Your task to perform on an android device: remove spam from my inbox in the gmail app Image 0: 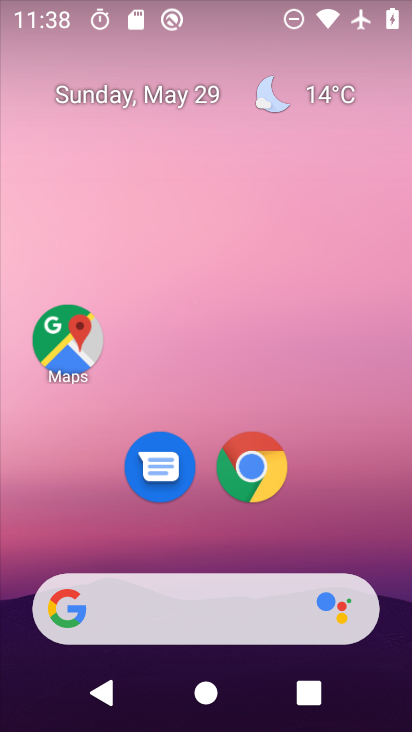
Step 0: drag from (191, 477) to (182, 202)
Your task to perform on an android device: remove spam from my inbox in the gmail app Image 1: 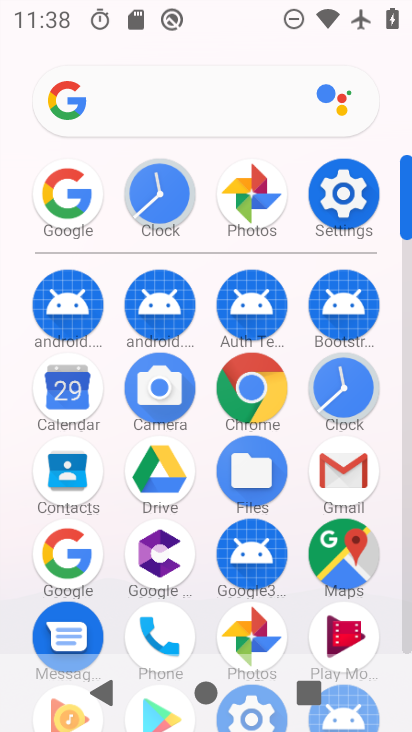
Step 1: click (337, 480)
Your task to perform on an android device: remove spam from my inbox in the gmail app Image 2: 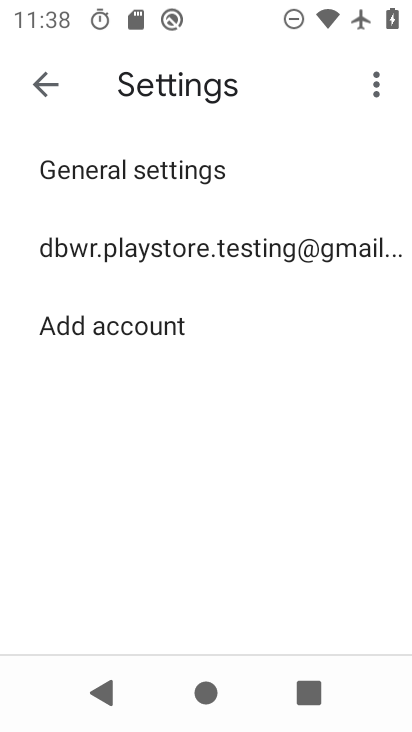
Step 2: click (41, 90)
Your task to perform on an android device: remove spam from my inbox in the gmail app Image 3: 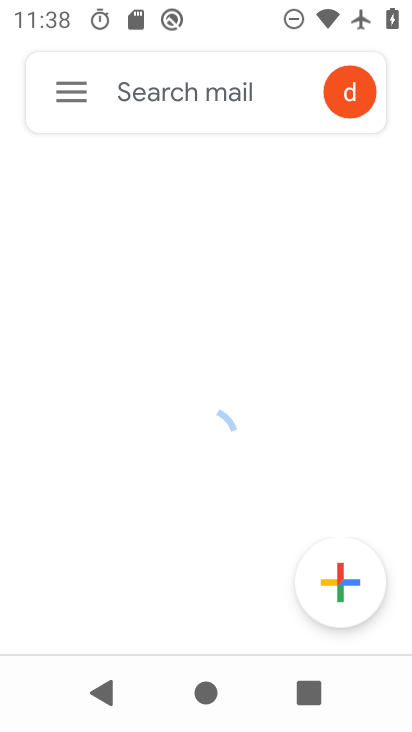
Step 3: click (63, 95)
Your task to perform on an android device: remove spam from my inbox in the gmail app Image 4: 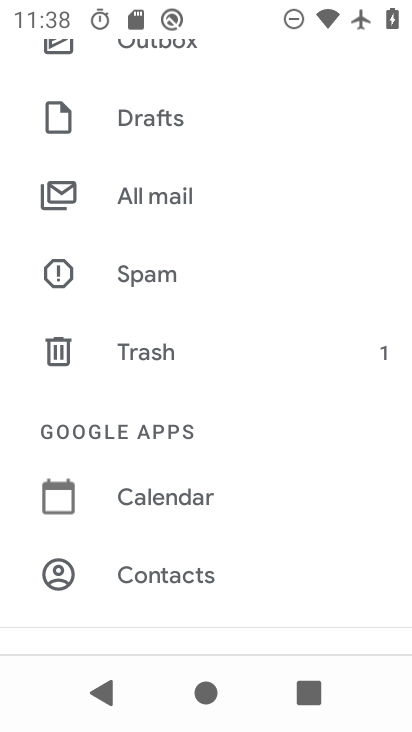
Step 4: click (173, 278)
Your task to perform on an android device: remove spam from my inbox in the gmail app Image 5: 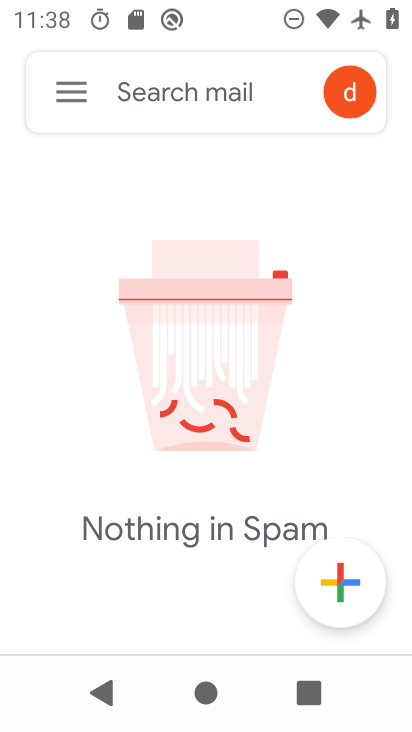
Step 5: task complete